Your task to perform on an android device: turn on javascript in the chrome app Image 0: 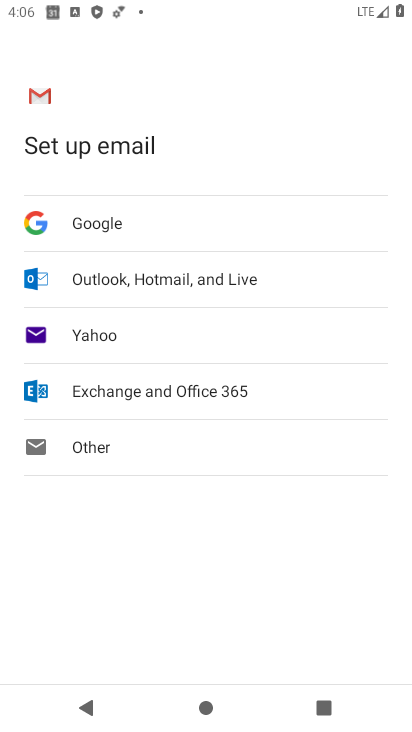
Step 0: press home button
Your task to perform on an android device: turn on javascript in the chrome app Image 1: 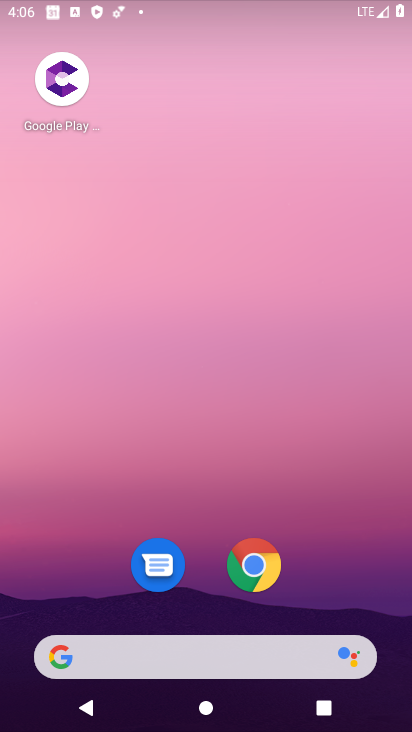
Step 1: drag from (314, 676) to (341, 37)
Your task to perform on an android device: turn on javascript in the chrome app Image 2: 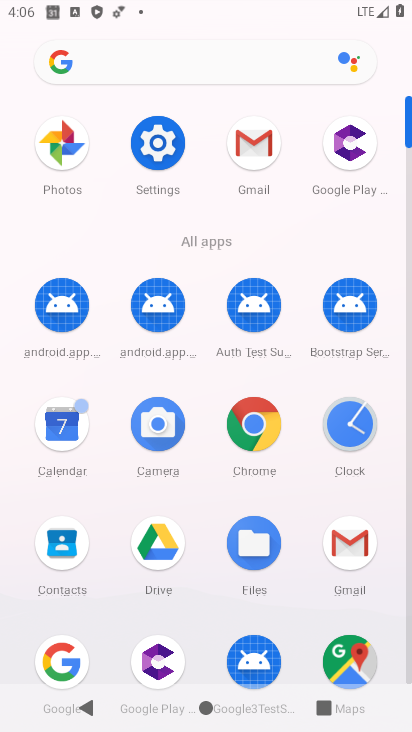
Step 2: click (259, 436)
Your task to perform on an android device: turn on javascript in the chrome app Image 3: 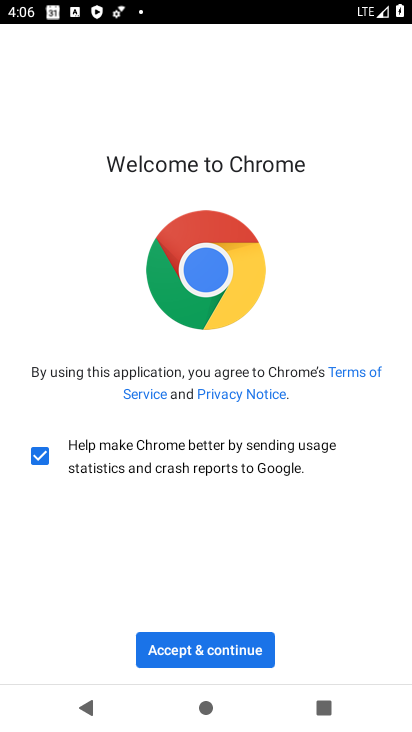
Step 3: click (213, 656)
Your task to perform on an android device: turn on javascript in the chrome app Image 4: 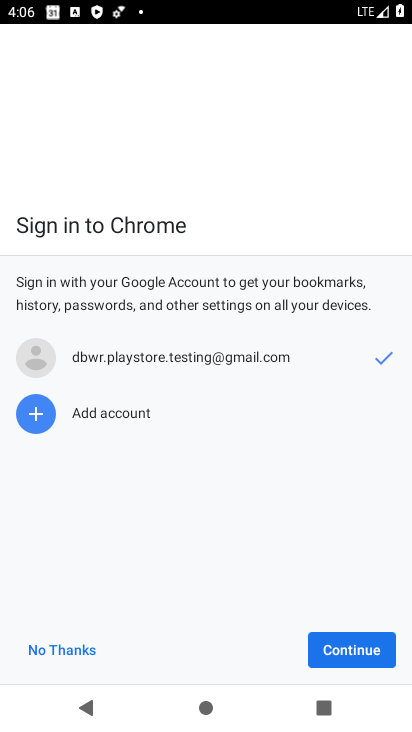
Step 4: click (78, 646)
Your task to perform on an android device: turn on javascript in the chrome app Image 5: 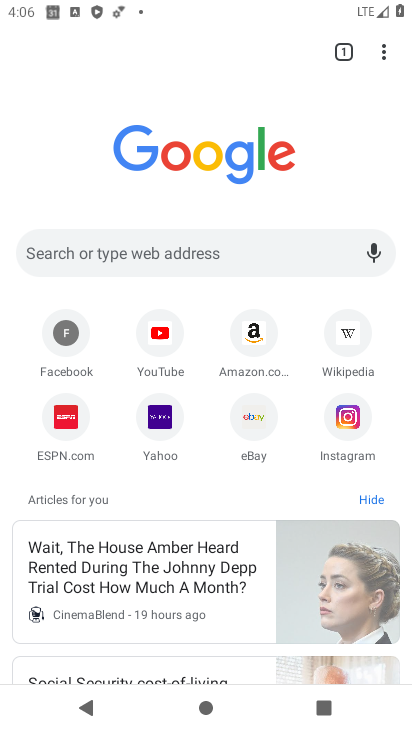
Step 5: click (389, 50)
Your task to perform on an android device: turn on javascript in the chrome app Image 6: 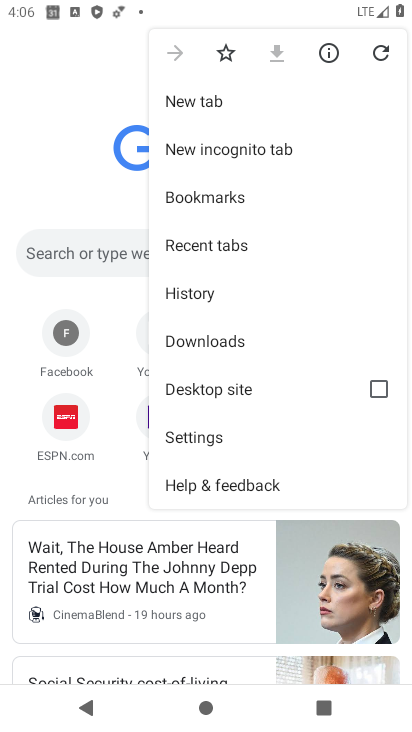
Step 6: click (250, 436)
Your task to perform on an android device: turn on javascript in the chrome app Image 7: 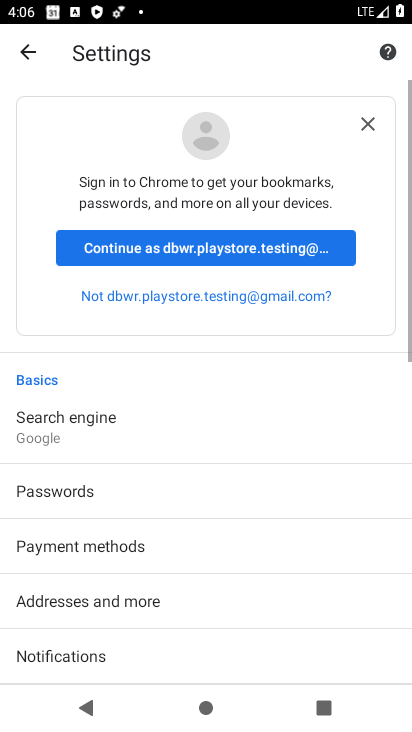
Step 7: drag from (169, 561) to (184, 239)
Your task to perform on an android device: turn on javascript in the chrome app Image 8: 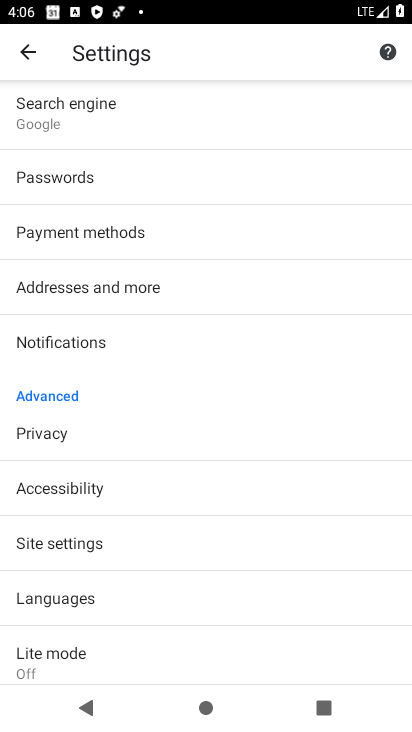
Step 8: click (135, 549)
Your task to perform on an android device: turn on javascript in the chrome app Image 9: 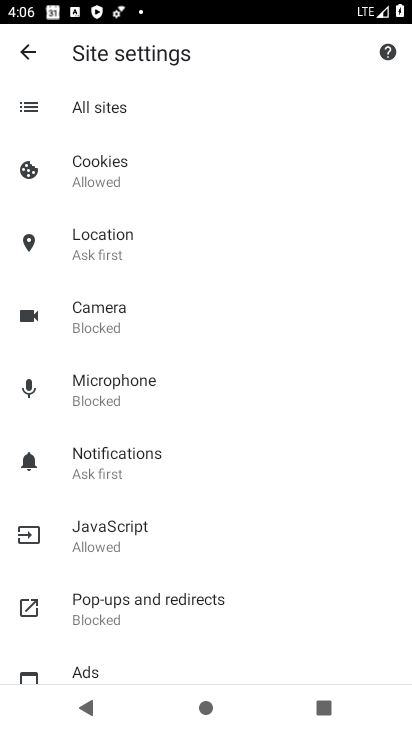
Step 9: click (170, 540)
Your task to perform on an android device: turn on javascript in the chrome app Image 10: 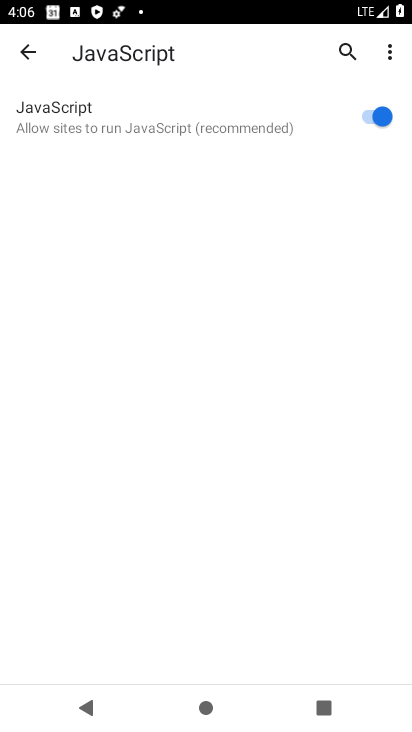
Step 10: task complete